Your task to perform on an android device: delete a single message in the gmail app Image 0: 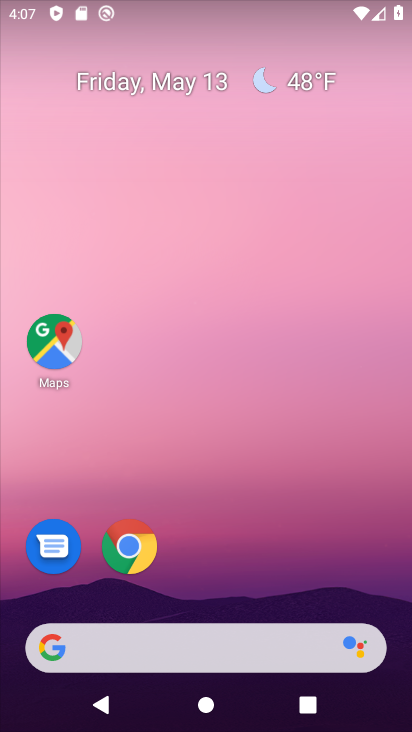
Step 0: drag from (235, 664) to (133, 111)
Your task to perform on an android device: delete a single message in the gmail app Image 1: 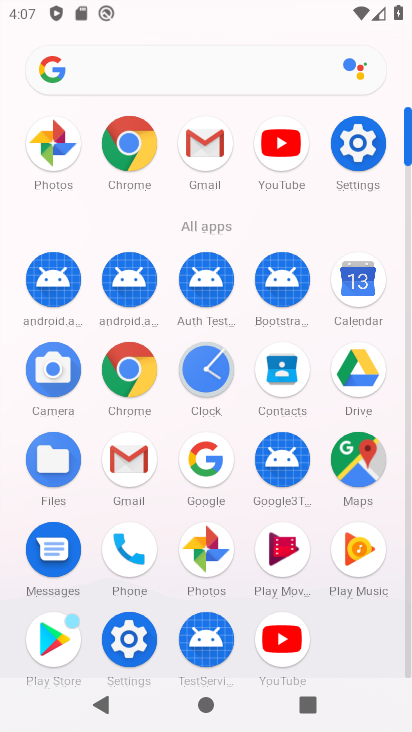
Step 1: click (110, 453)
Your task to perform on an android device: delete a single message in the gmail app Image 2: 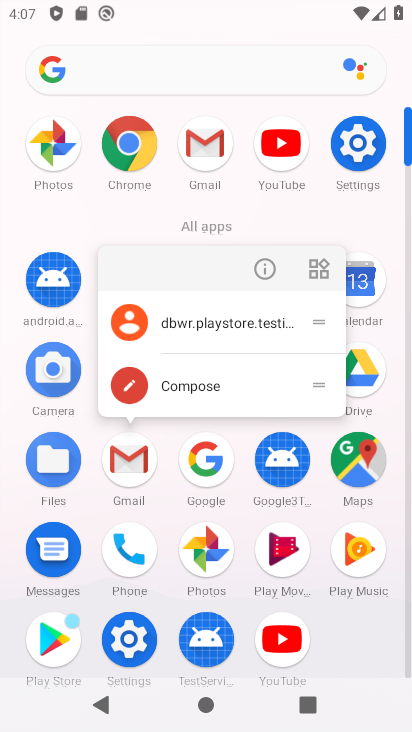
Step 2: click (121, 455)
Your task to perform on an android device: delete a single message in the gmail app Image 3: 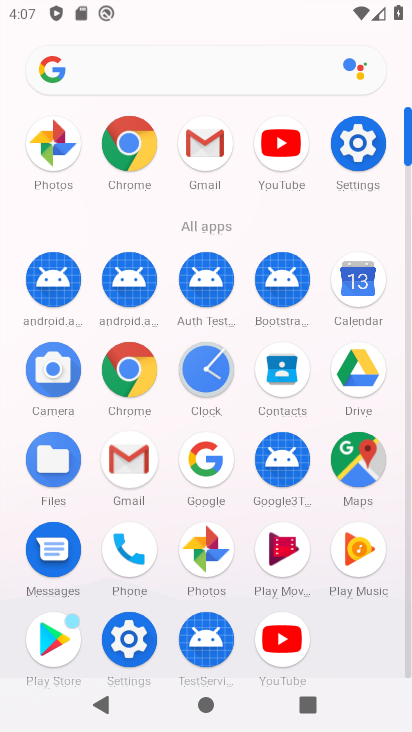
Step 3: click (121, 457)
Your task to perform on an android device: delete a single message in the gmail app Image 4: 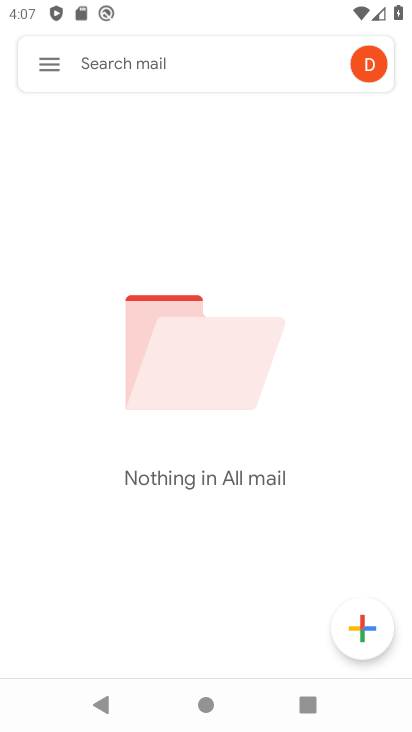
Step 4: click (56, 76)
Your task to perform on an android device: delete a single message in the gmail app Image 5: 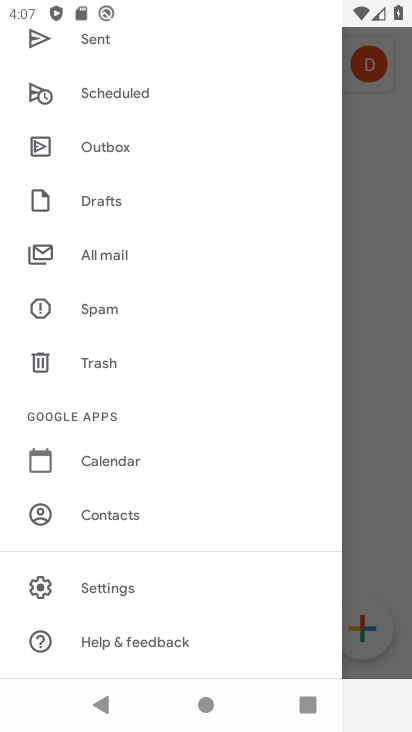
Step 5: click (101, 263)
Your task to perform on an android device: delete a single message in the gmail app Image 6: 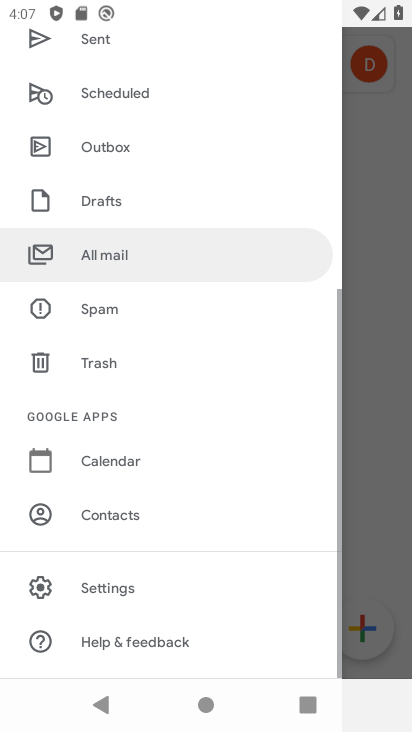
Step 6: click (101, 262)
Your task to perform on an android device: delete a single message in the gmail app Image 7: 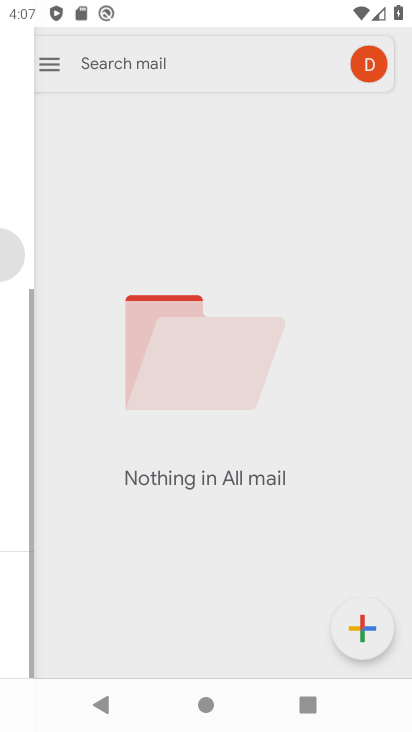
Step 7: click (101, 262)
Your task to perform on an android device: delete a single message in the gmail app Image 8: 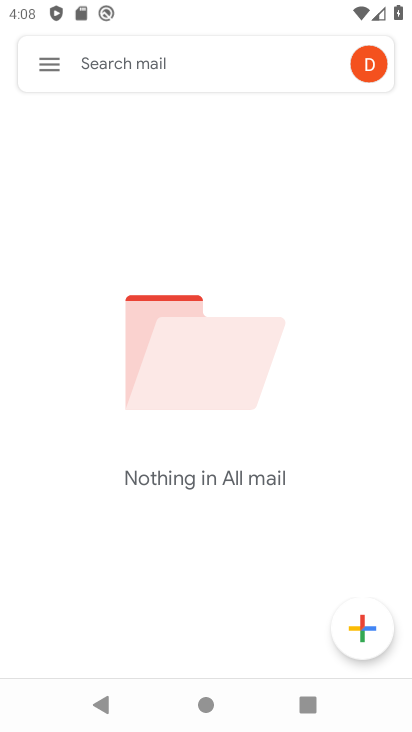
Step 8: task complete